Your task to perform on an android device: toggle priority inbox in the gmail app Image 0: 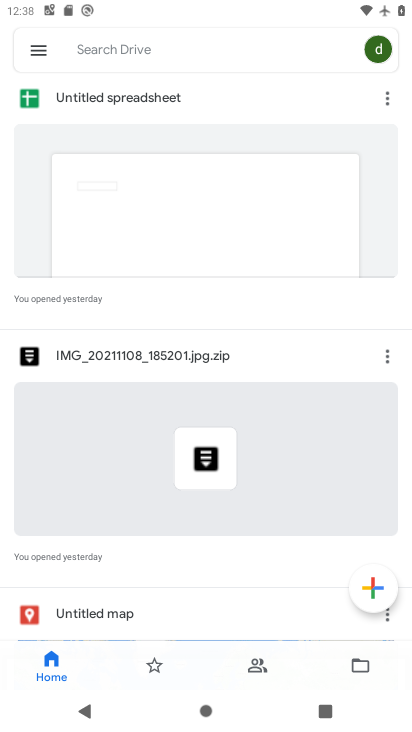
Step 0: press back button
Your task to perform on an android device: toggle priority inbox in the gmail app Image 1: 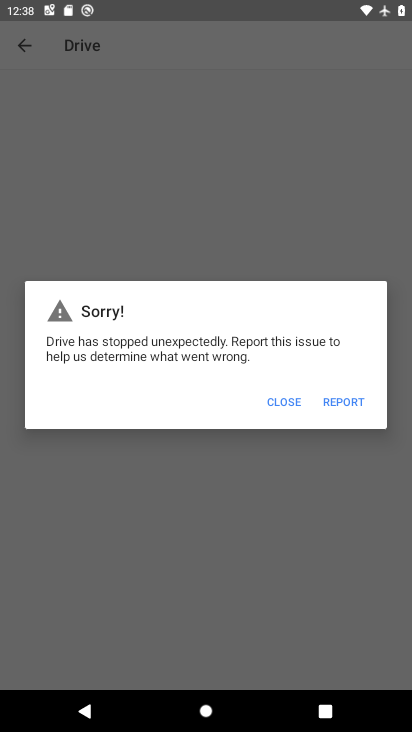
Step 1: press back button
Your task to perform on an android device: toggle priority inbox in the gmail app Image 2: 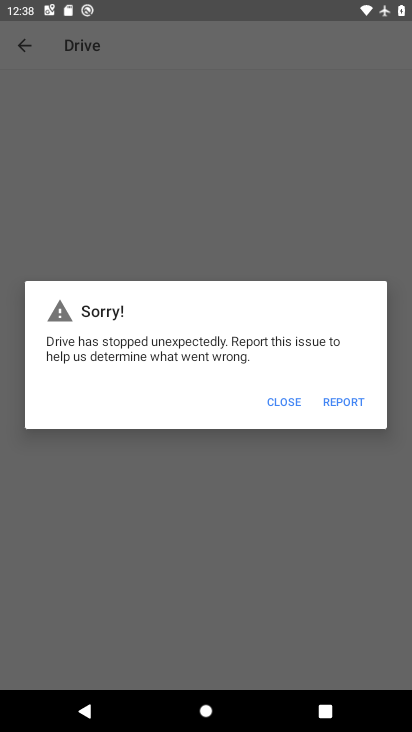
Step 2: click (292, 401)
Your task to perform on an android device: toggle priority inbox in the gmail app Image 3: 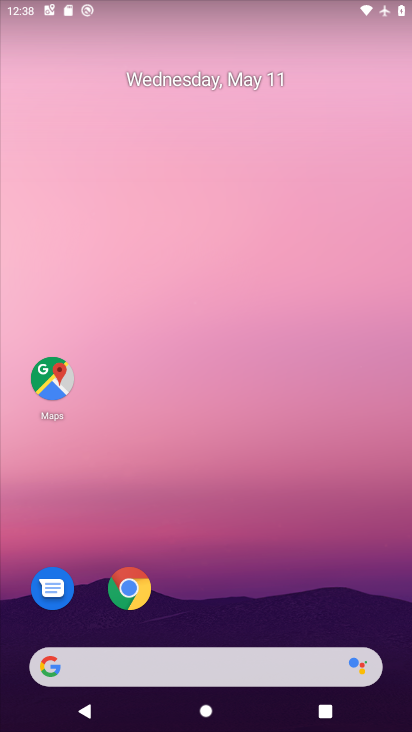
Step 3: drag from (210, 640) to (253, 214)
Your task to perform on an android device: toggle priority inbox in the gmail app Image 4: 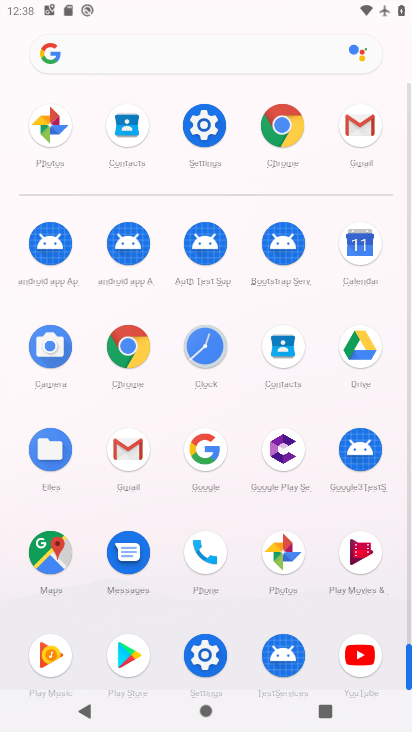
Step 4: click (132, 451)
Your task to perform on an android device: toggle priority inbox in the gmail app Image 5: 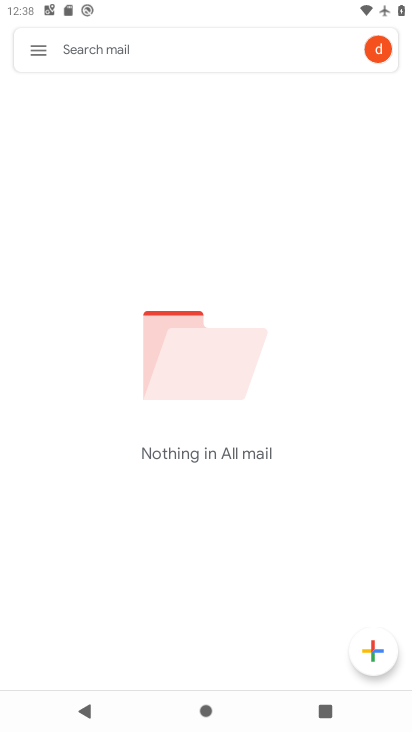
Step 5: click (29, 60)
Your task to perform on an android device: toggle priority inbox in the gmail app Image 6: 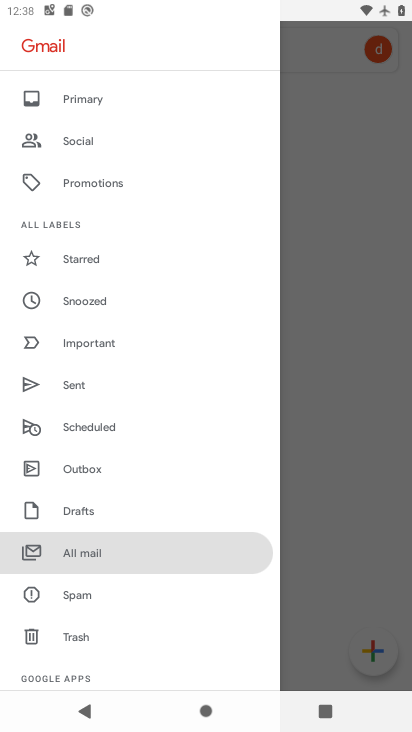
Step 6: drag from (79, 651) to (106, 325)
Your task to perform on an android device: toggle priority inbox in the gmail app Image 7: 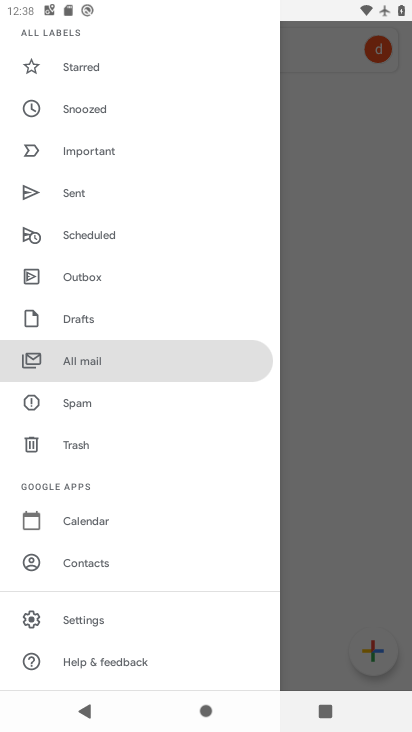
Step 7: click (93, 624)
Your task to perform on an android device: toggle priority inbox in the gmail app Image 8: 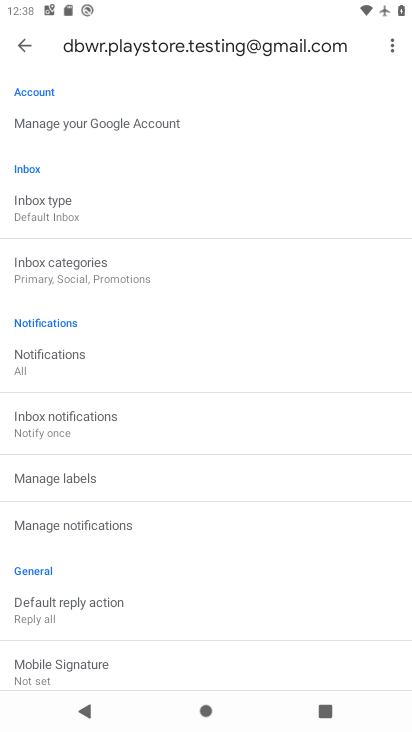
Step 8: click (51, 213)
Your task to perform on an android device: toggle priority inbox in the gmail app Image 9: 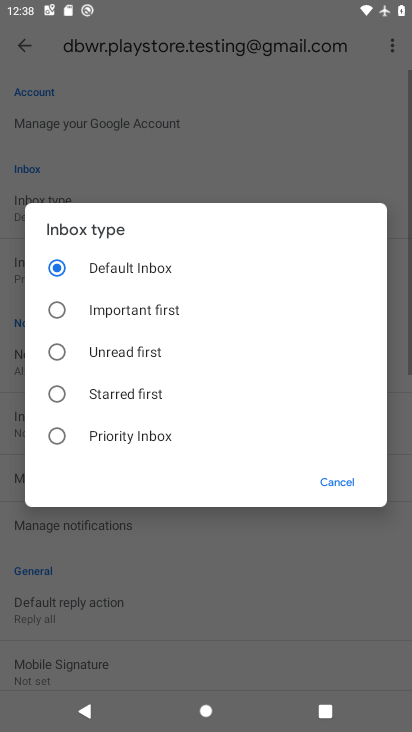
Step 9: click (85, 436)
Your task to perform on an android device: toggle priority inbox in the gmail app Image 10: 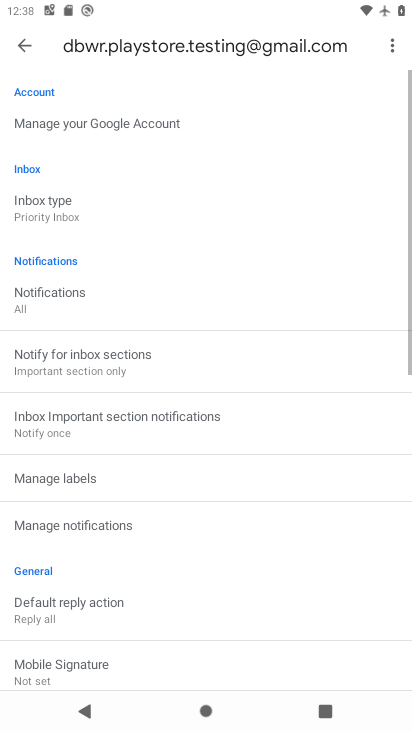
Step 10: task complete